Your task to perform on an android device: read, delete, or share a saved page in the chrome app Image 0: 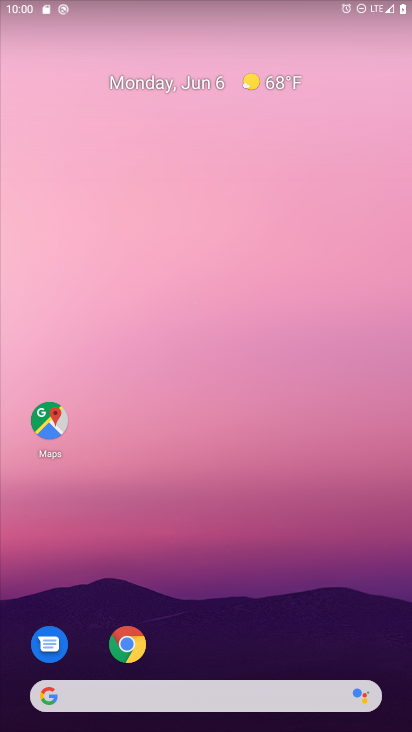
Step 0: drag from (259, 713) to (236, 258)
Your task to perform on an android device: read, delete, or share a saved page in the chrome app Image 1: 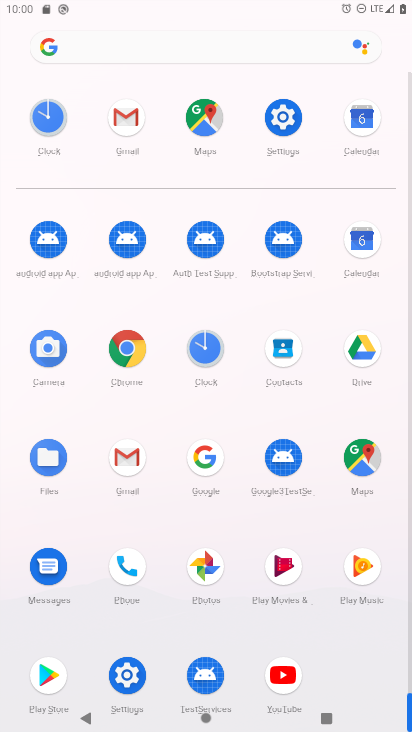
Step 1: click (126, 356)
Your task to perform on an android device: read, delete, or share a saved page in the chrome app Image 2: 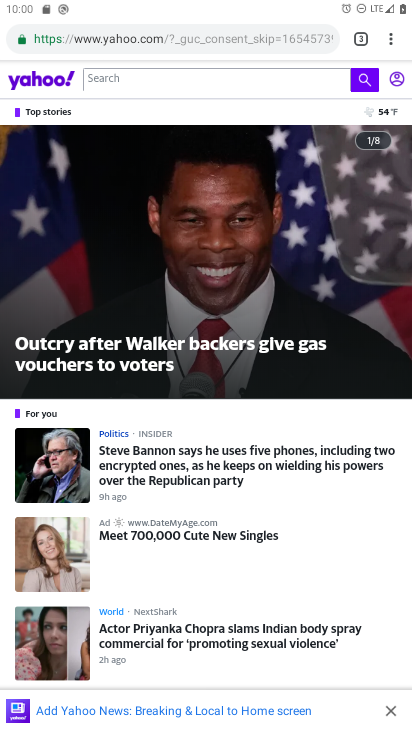
Step 2: click (383, 53)
Your task to perform on an android device: read, delete, or share a saved page in the chrome app Image 3: 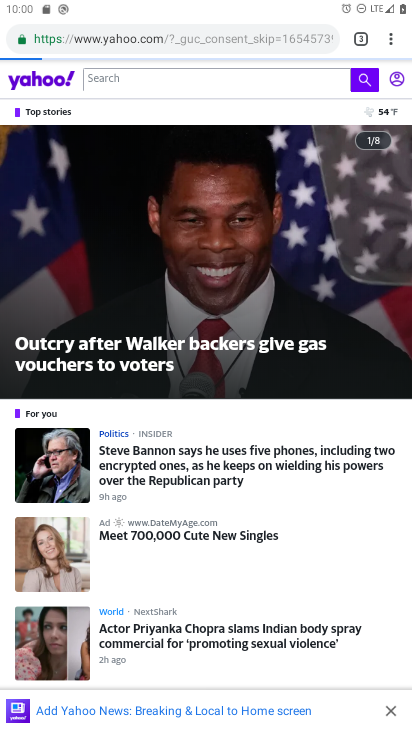
Step 3: click (388, 41)
Your task to perform on an android device: read, delete, or share a saved page in the chrome app Image 4: 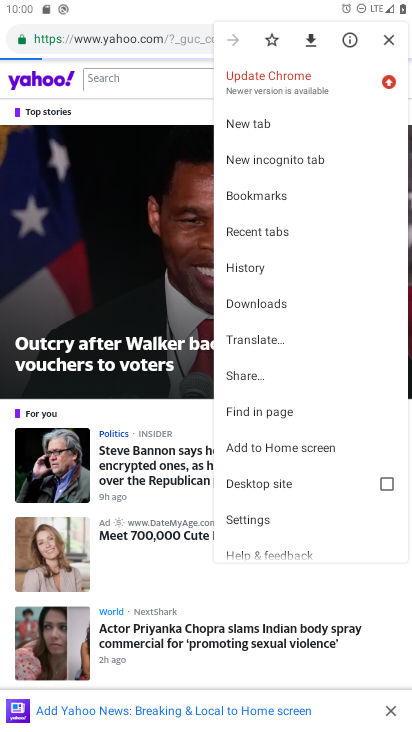
Step 4: click (274, 370)
Your task to perform on an android device: read, delete, or share a saved page in the chrome app Image 5: 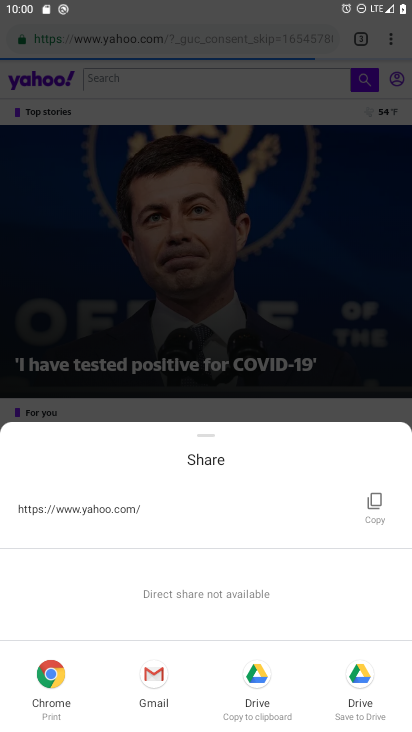
Step 5: task complete